Your task to perform on an android device: Open Google Maps Image 0: 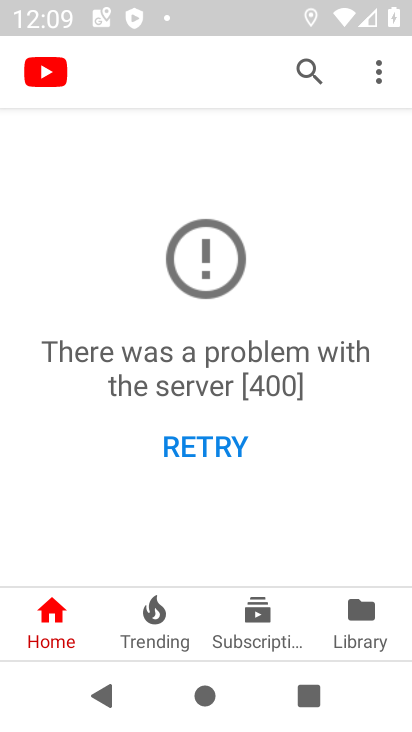
Step 0: press home button
Your task to perform on an android device: Open Google Maps Image 1: 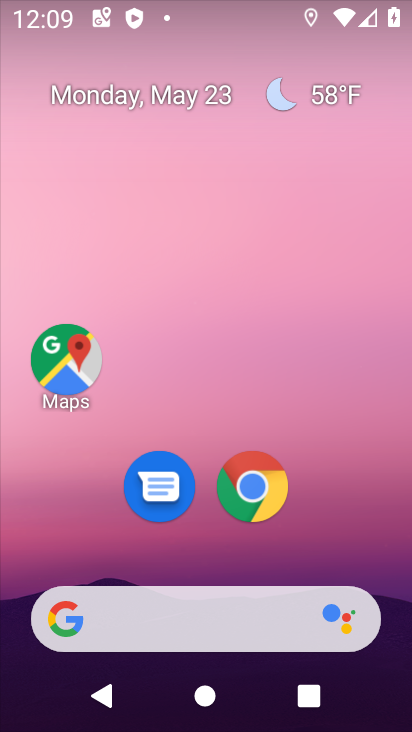
Step 1: click (67, 360)
Your task to perform on an android device: Open Google Maps Image 2: 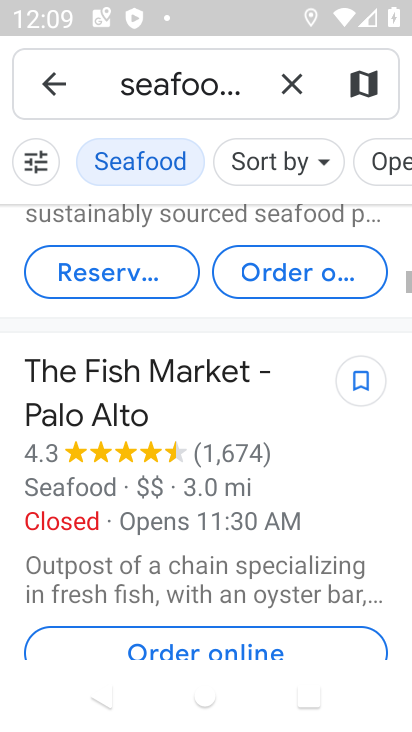
Step 2: click (286, 83)
Your task to perform on an android device: Open Google Maps Image 3: 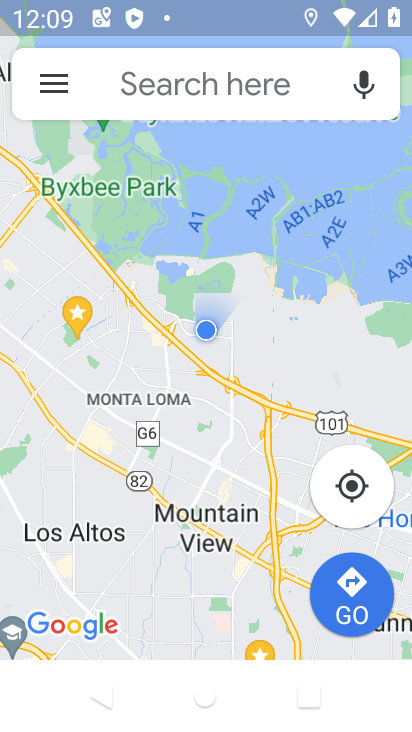
Step 3: task complete